Your task to perform on an android device: check the backup settings in the google photos Image 0: 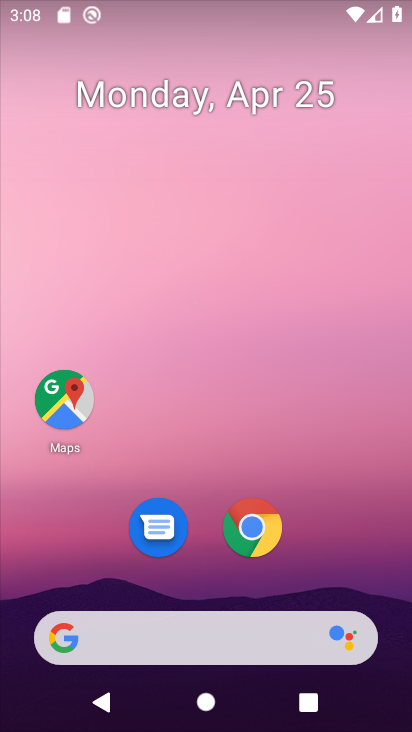
Step 0: drag from (355, 393) to (342, 44)
Your task to perform on an android device: check the backup settings in the google photos Image 1: 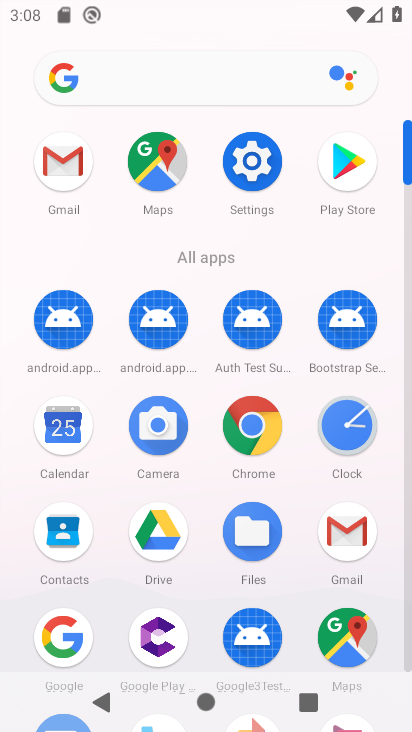
Step 1: click (407, 645)
Your task to perform on an android device: check the backup settings in the google photos Image 2: 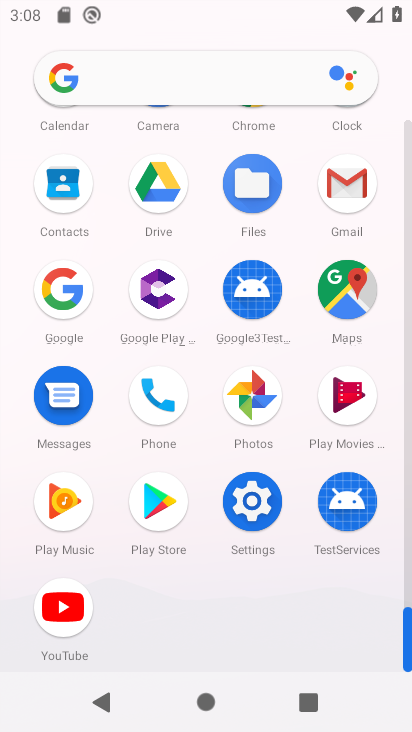
Step 2: click (246, 399)
Your task to perform on an android device: check the backup settings in the google photos Image 3: 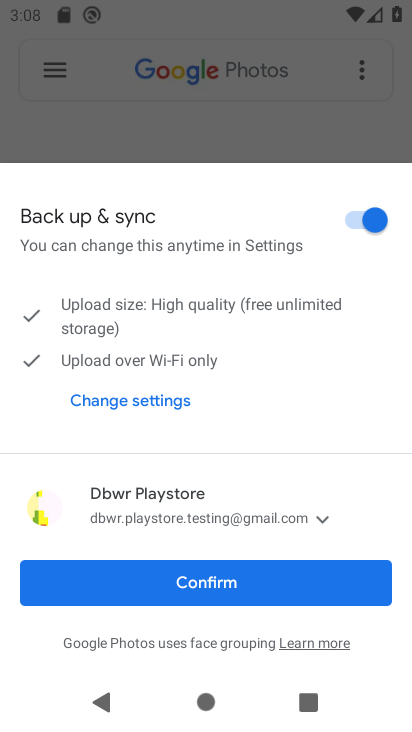
Step 3: click (185, 576)
Your task to perform on an android device: check the backup settings in the google photos Image 4: 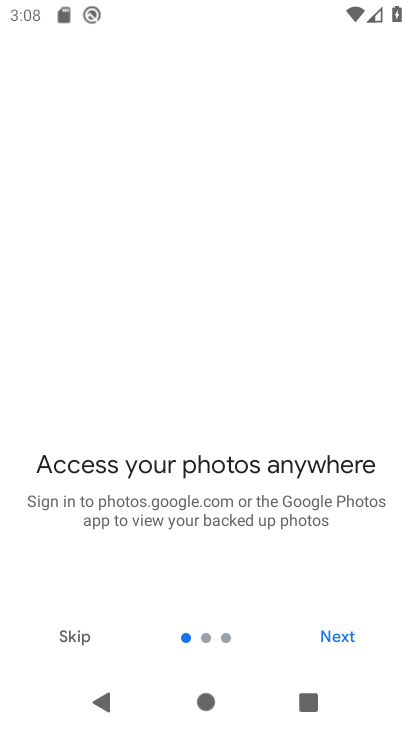
Step 4: click (342, 645)
Your task to perform on an android device: check the backup settings in the google photos Image 5: 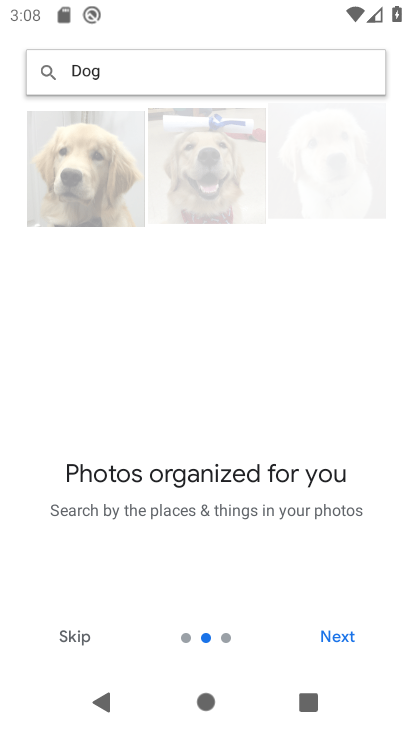
Step 5: click (339, 638)
Your task to perform on an android device: check the backup settings in the google photos Image 6: 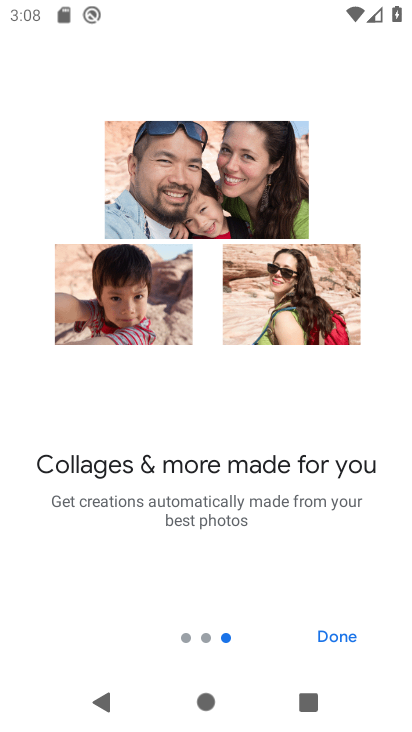
Step 6: click (339, 638)
Your task to perform on an android device: check the backup settings in the google photos Image 7: 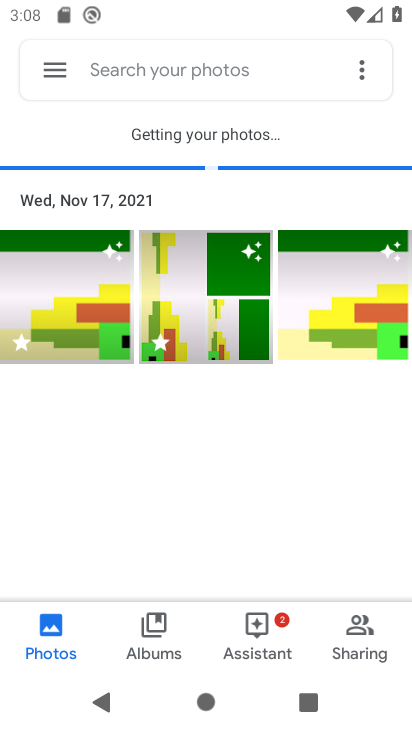
Step 7: click (56, 61)
Your task to perform on an android device: check the backup settings in the google photos Image 8: 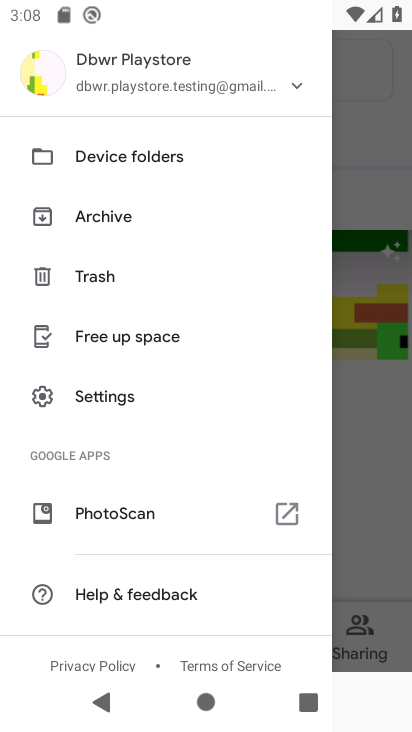
Step 8: click (115, 393)
Your task to perform on an android device: check the backup settings in the google photos Image 9: 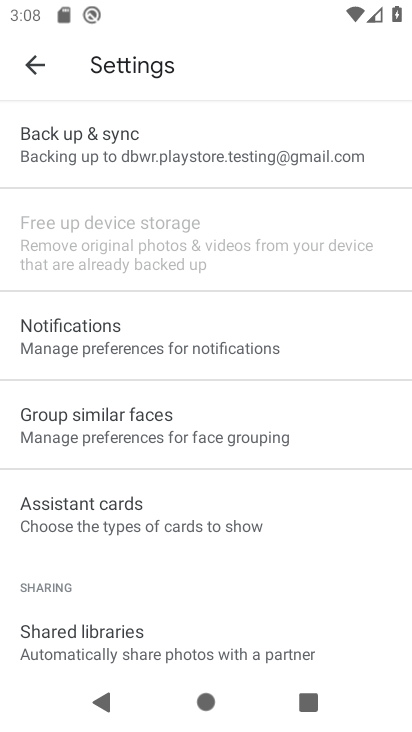
Step 9: click (81, 127)
Your task to perform on an android device: check the backup settings in the google photos Image 10: 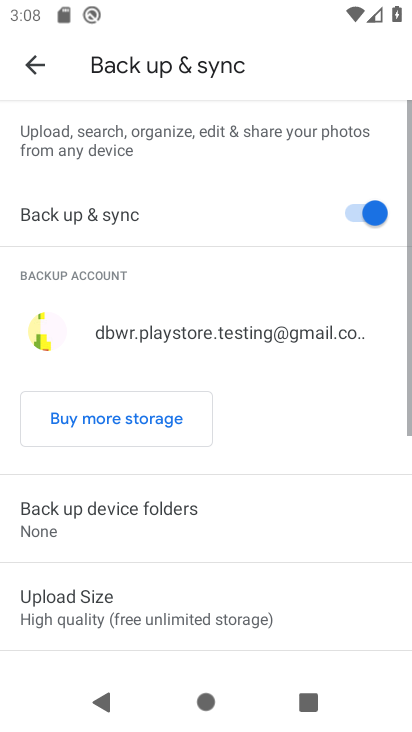
Step 10: task complete